Your task to perform on an android device: remove spam from my inbox in the gmail app Image 0: 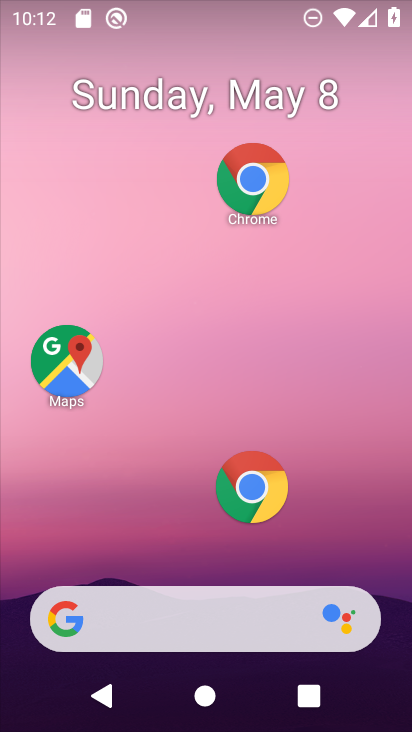
Step 0: drag from (171, 545) to (199, 39)
Your task to perform on an android device: remove spam from my inbox in the gmail app Image 1: 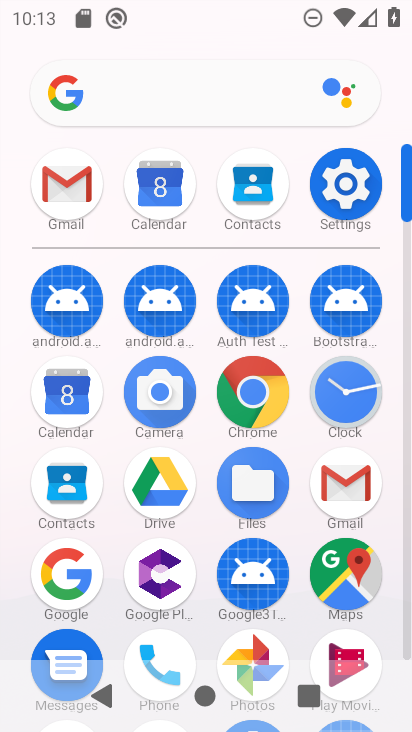
Step 1: click (76, 184)
Your task to perform on an android device: remove spam from my inbox in the gmail app Image 2: 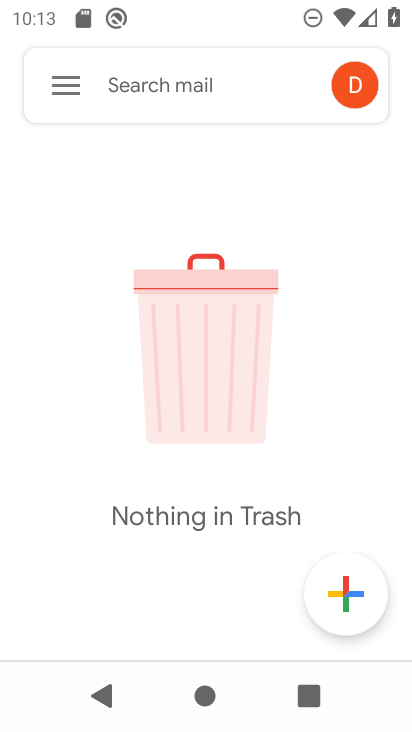
Step 2: click (66, 76)
Your task to perform on an android device: remove spam from my inbox in the gmail app Image 3: 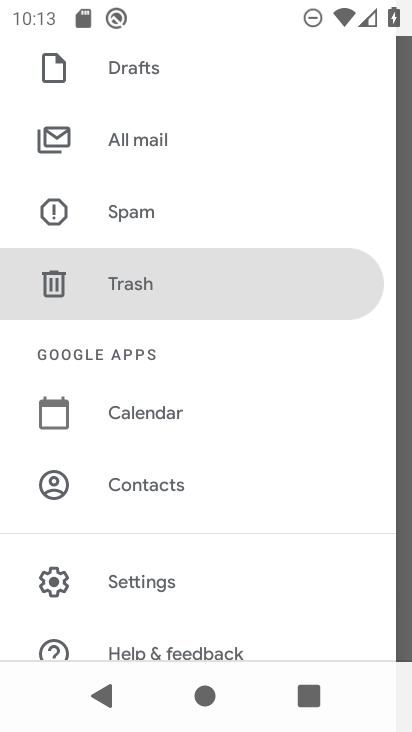
Step 3: click (204, 210)
Your task to perform on an android device: remove spam from my inbox in the gmail app Image 4: 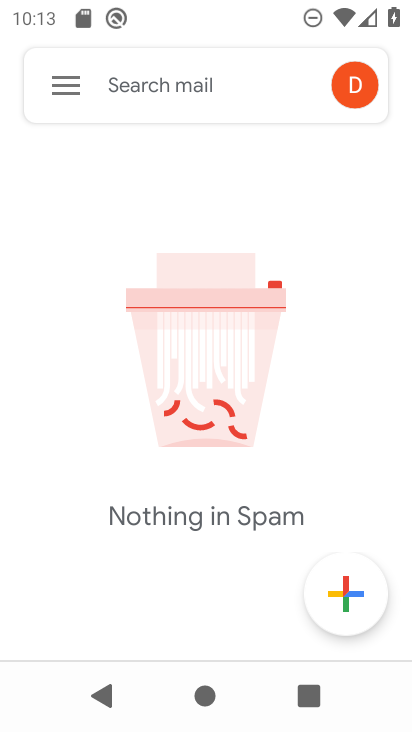
Step 4: task complete